Your task to perform on an android device: change your default location settings in chrome Image 0: 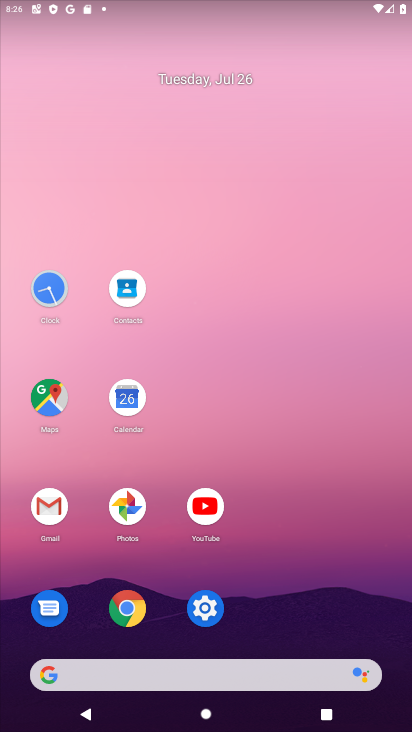
Step 0: click (123, 613)
Your task to perform on an android device: change your default location settings in chrome Image 1: 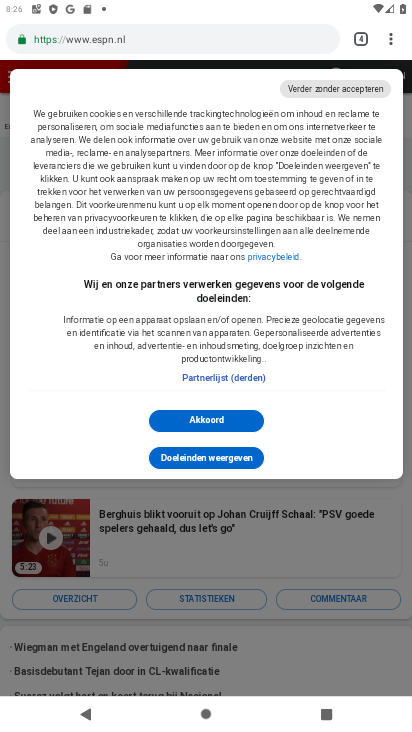
Step 1: click (390, 38)
Your task to perform on an android device: change your default location settings in chrome Image 2: 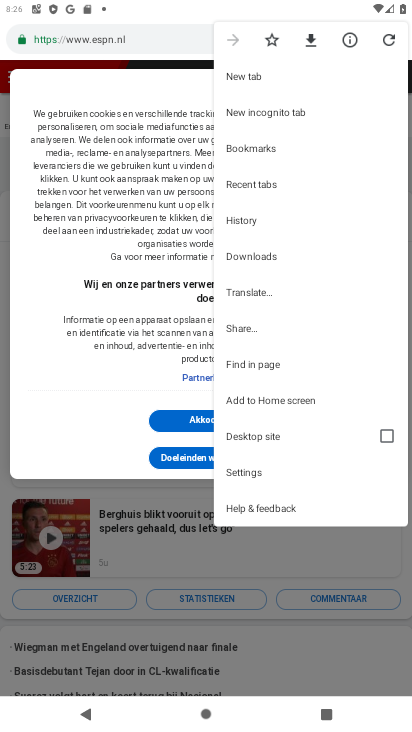
Step 2: click (247, 474)
Your task to perform on an android device: change your default location settings in chrome Image 3: 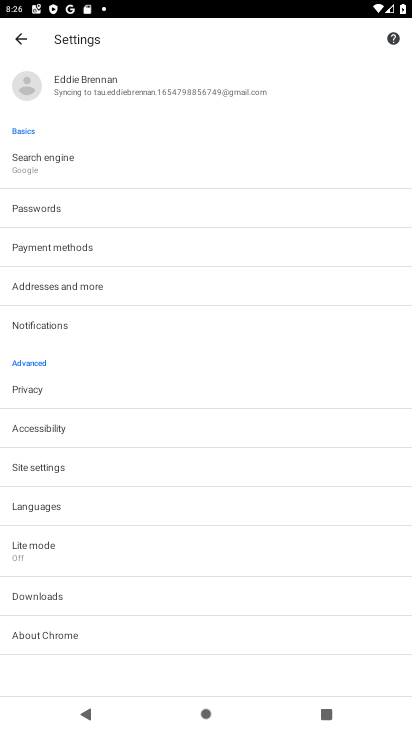
Step 3: click (46, 466)
Your task to perform on an android device: change your default location settings in chrome Image 4: 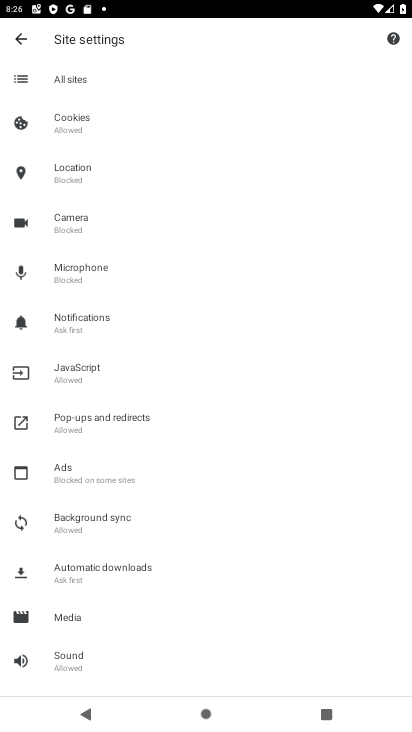
Step 4: click (59, 169)
Your task to perform on an android device: change your default location settings in chrome Image 5: 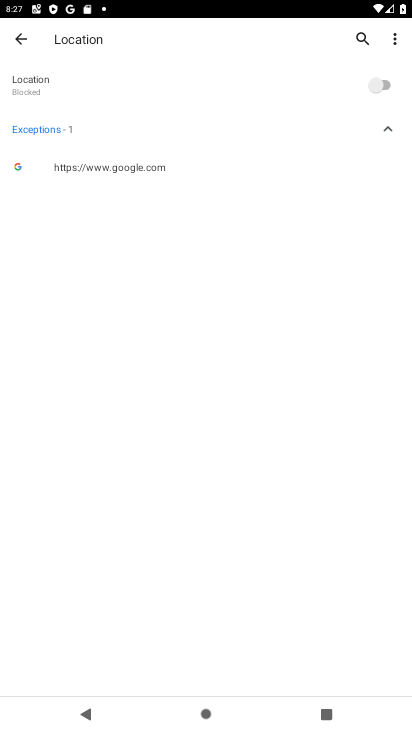
Step 5: click (379, 82)
Your task to perform on an android device: change your default location settings in chrome Image 6: 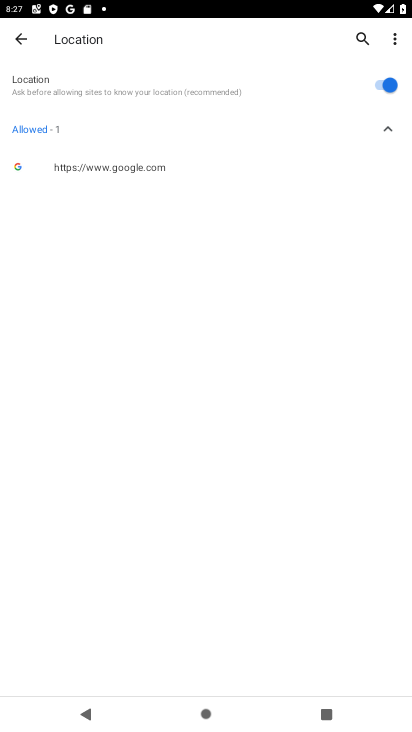
Step 6: task complete